Your task to perform on an android device: open app "Etsy: Buy & Sell Unique Items" Image 0: 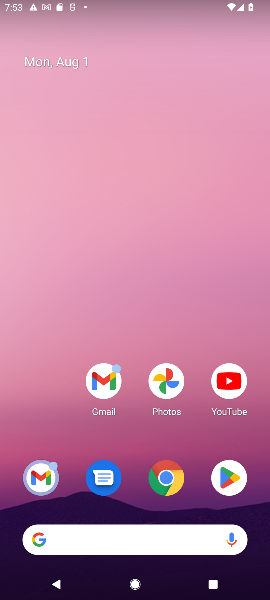
Step 0: press home button
Your task to perform on an android device: open app "Etsy: Buy & Sell Unique Items" Image 1: 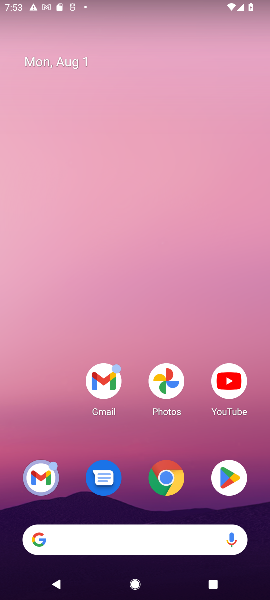
Step 1: click (237, 473)
Your task to perform on an android device: open app "Etsy: Buy & Sell Unique Items" Image 2: 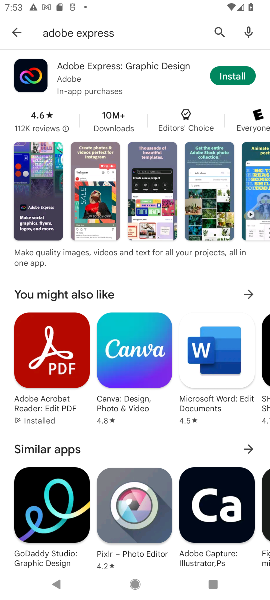
Step 2: click (219, 28)
Your task to perform on an android device: open app "Etsy: Buy & Sell Unique Items" Image 3: 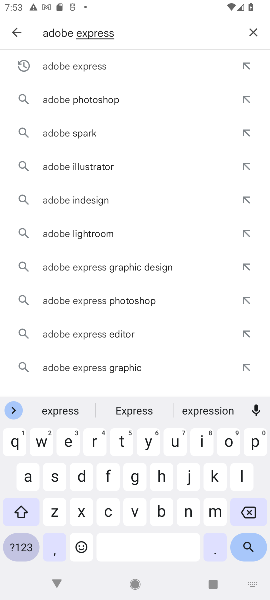
Step 3: click (253, 29)
Your task to perform on an android device: open app "Etsy: Buy & Sell Unique Items" Image 4: 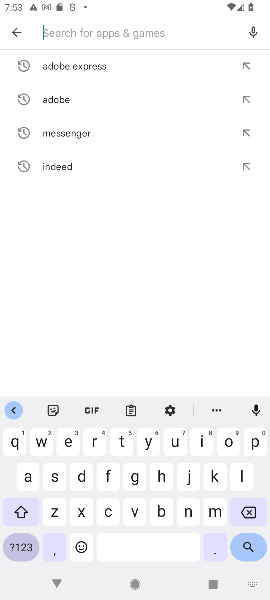
Step 4: click (225, 440)
Your task to perform on an android device: open app "Etsy: Buy & Sell Unique Items" Image 5: 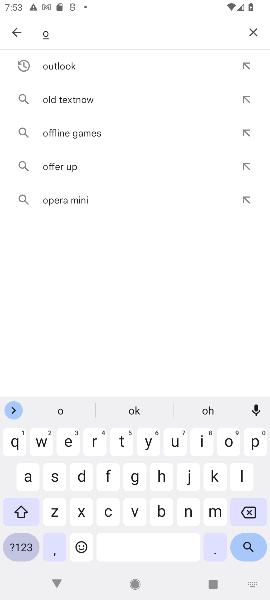
Step 5: click (246, 509)
Your task to perform on an android device: open app "Etsy: Buy & Sell Unique Items" Image 6: 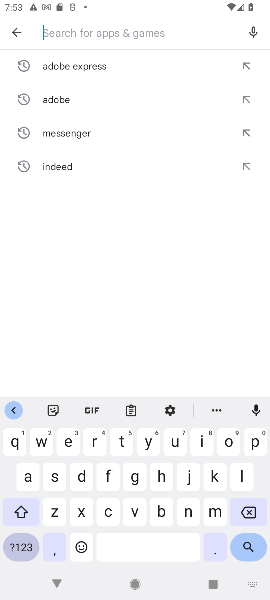
Step 6: click (65, 444)
Your task to perform on an android device: open app "Etsy: Buy & Sell Unique Items" Image 7: 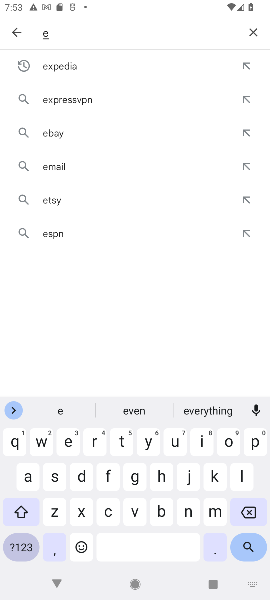
Step 7: click (122, 440)
Your task to perform on an android device: open app "Etsy: Buy & Sell Unique Items" Image 8: 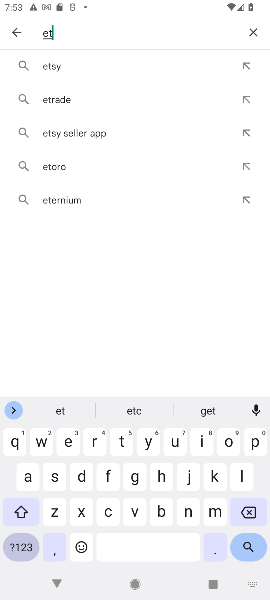
Step 8: click (59, 63)
Your task to perform on an android device: open app "Etsy: Buy & Sell Unique Items" Image 9: 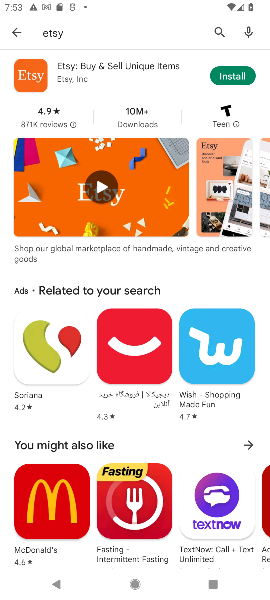
Step 9: click (231, 67)
Your task to perform on an android device: open app "Etsy: Buy & Sell Unique Items" Image 10: 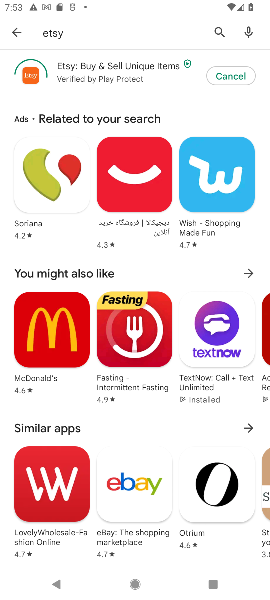
Step 10: click (225, 79)
Your task to perform on an android device: open app "Etsy: Buy & Sell Unique Items" Image 11: 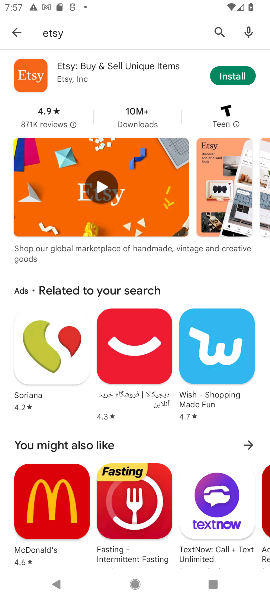
Step 11: task complete